Your task to perform on an android device: Play the last video I watched on Youtube Image 0: 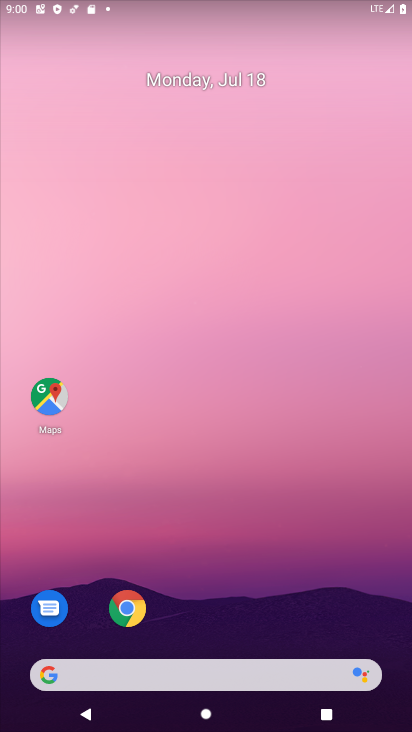
Step 0: drag from (67, 592) to (248, 142)
Your task to perform on an android device: Play the last video I watched on Youtube Image 1: 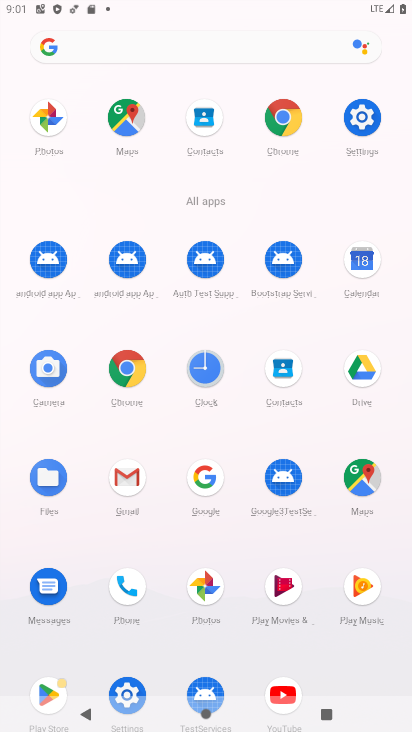
Step 1: click (282, 692)
Your task to perform on an android device: Play the last video I watched on Youtube Image 2: 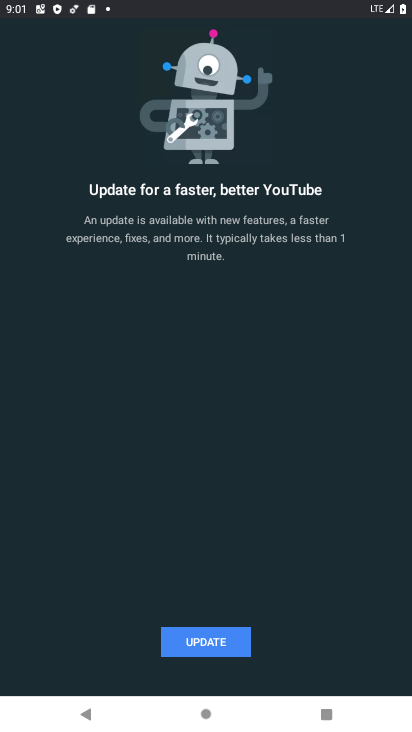
Step 2: click (201, 637)
Your task to perform on an android device: Play the last video I watched on Youtube Image 3: 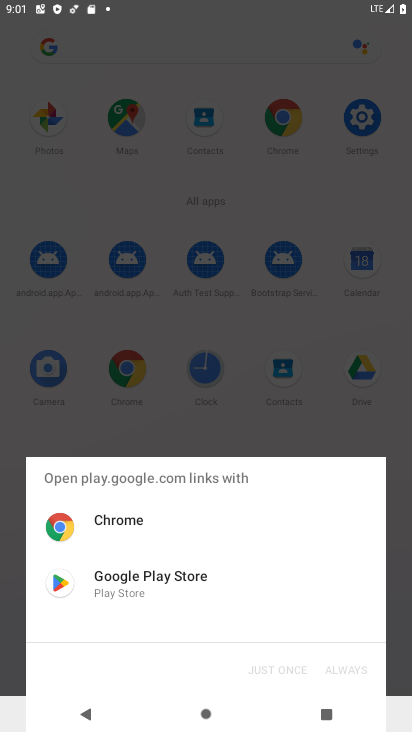
Step 3: click (159, 585)
Your task to perform on an android device: Play the last video I watched on Youtube Image 4: 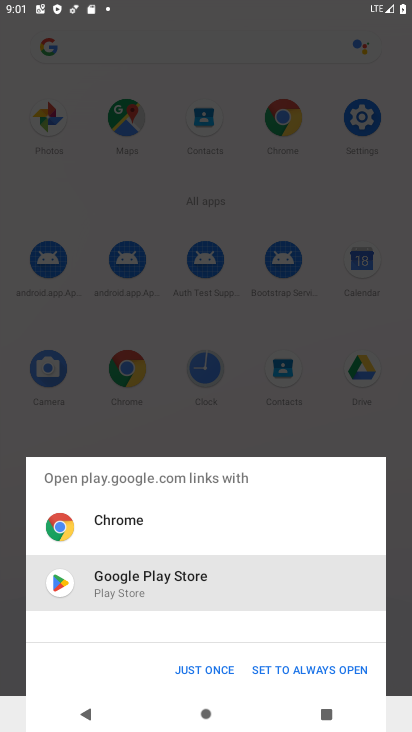
Step 4: click (228, 656)
Your task to perform on an android device: Play the last video I watched on Youtube Image 5: 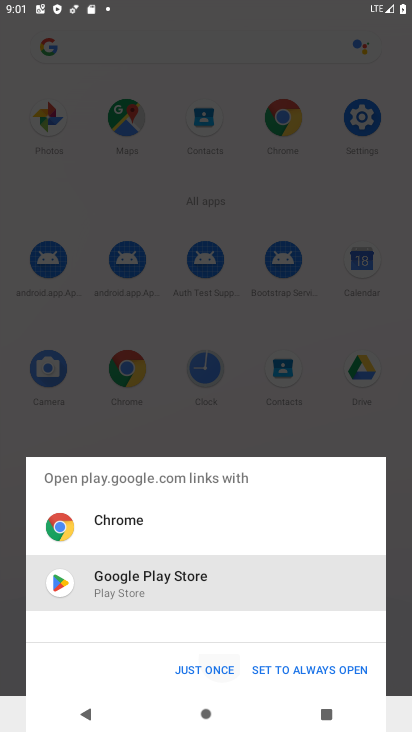
Step 5: click (224, 664)
Your task to perform on an android device: Play the last video I watched on Youtube Image 6: 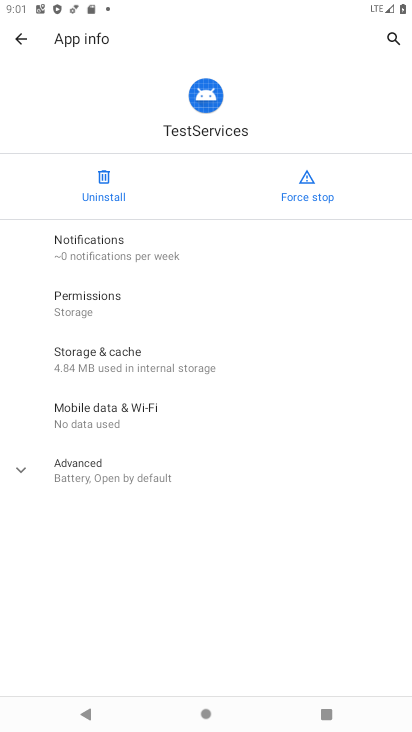
Step 6: task complete